Your task to perform on an android device: open app "eBay: The shopping marketplace" (install if not already installed) and go to login screen Image 0: 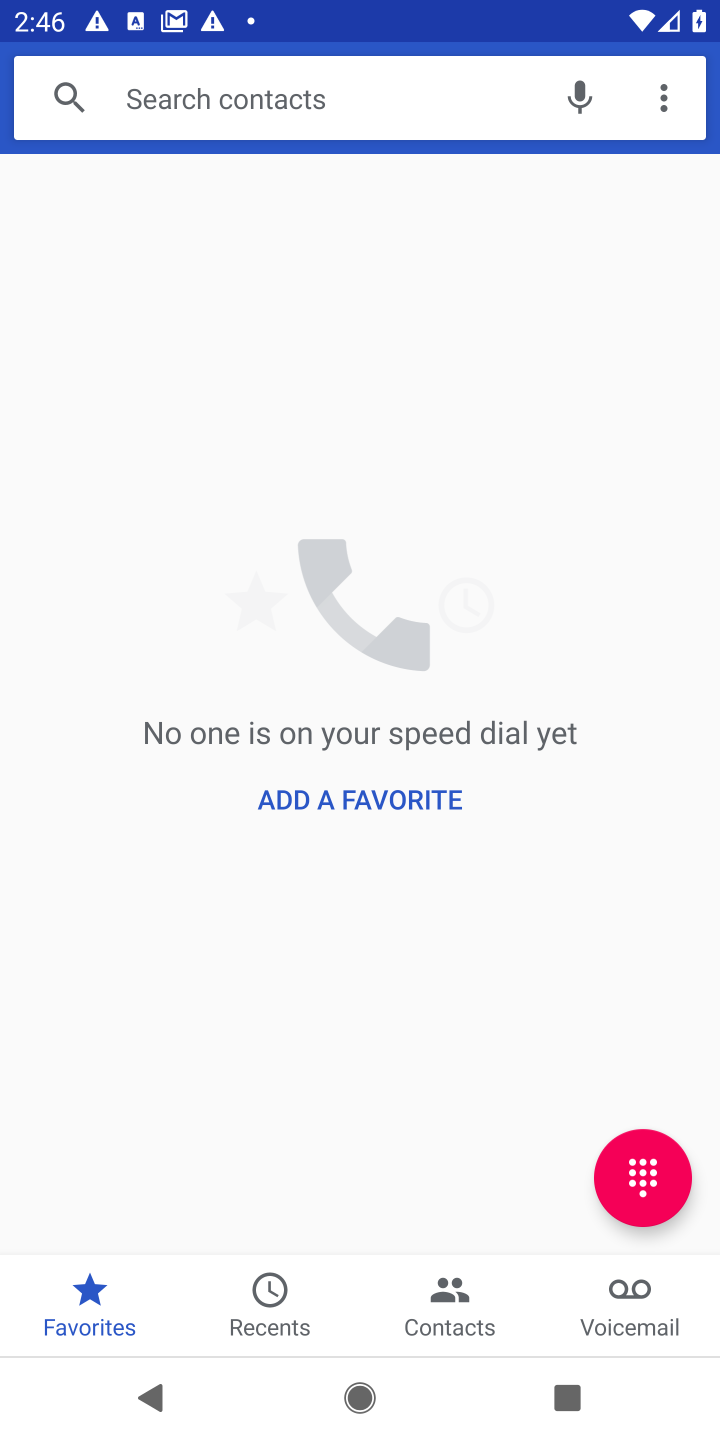
Step 0: press home button
Your task to perform on an android device: open app "eBay: The shopping marketplace" (install if not already installed) and go to login screen Image 1: 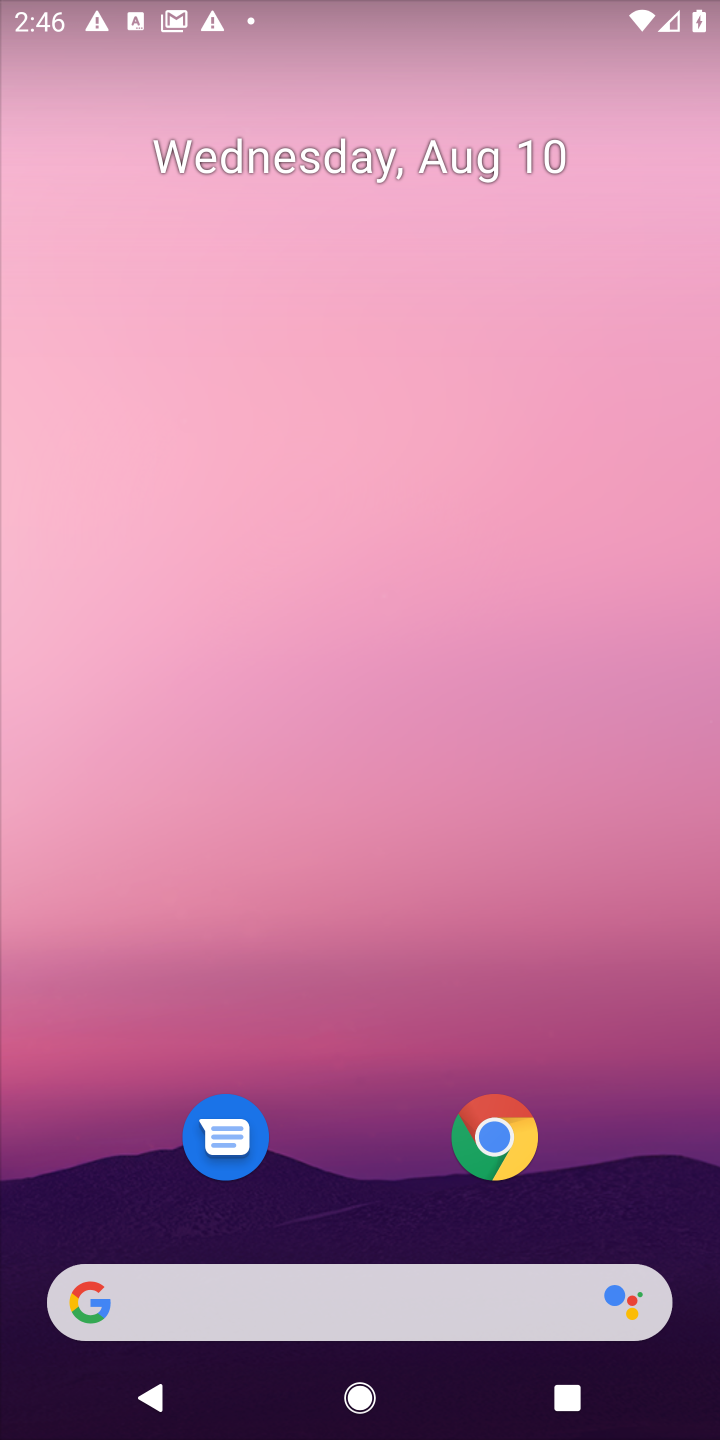
Step 1: drag from (358, 818) to (382, 76)
Your task to perform on an android device: open app "eBay: The shopping marketplace" (install if not already installed) and go to login screen Image 2: 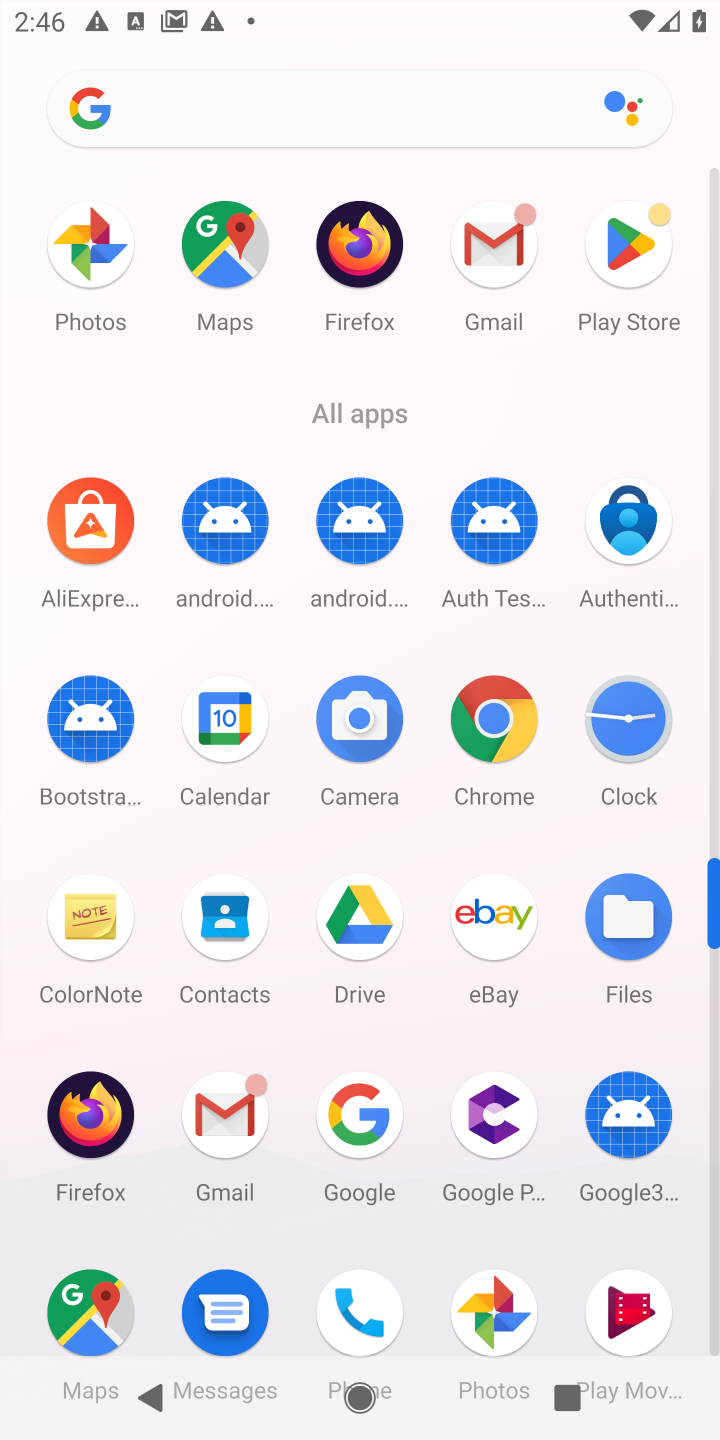
Step 2: click (651, 279)
Your task to perform on an android device: open app "eBay: The shopping marketplace" (install if not already installed) and go to login screen Image 3: 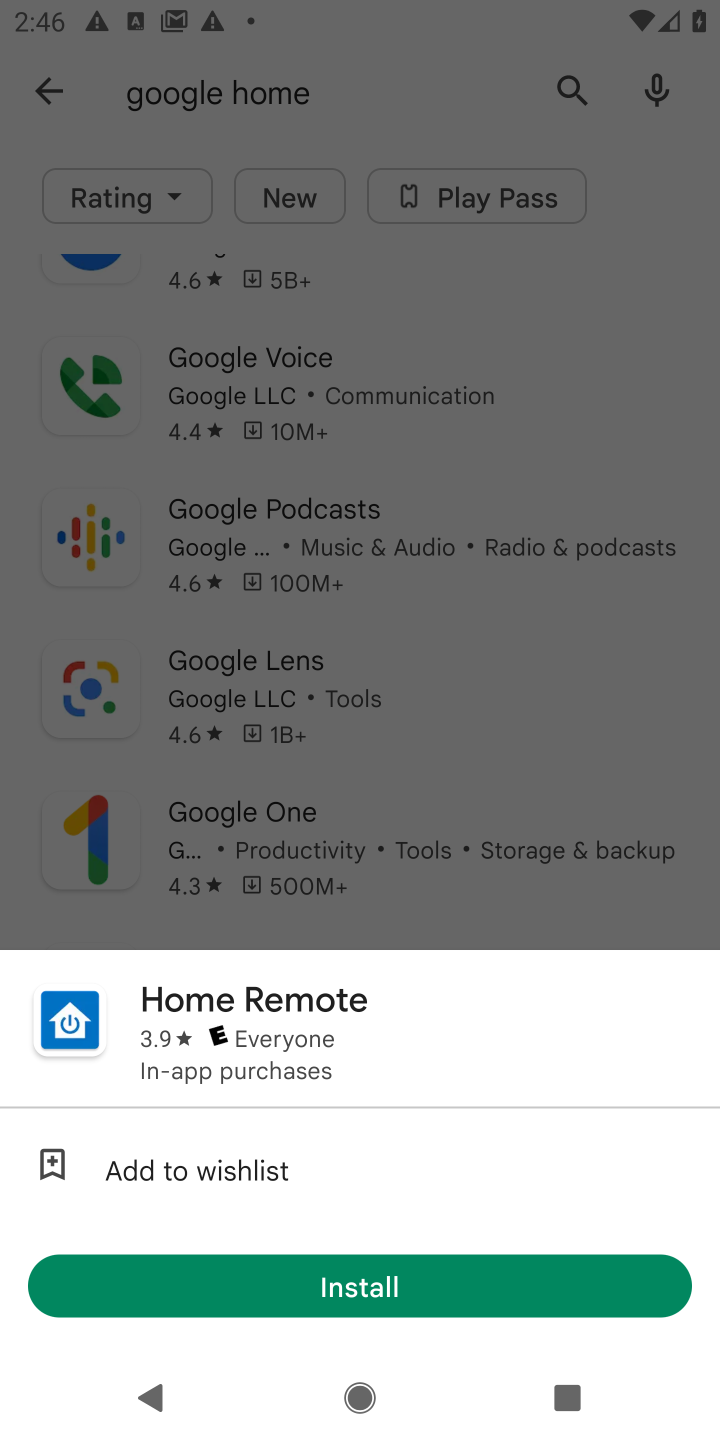
Step 3: click (45, 91)
Your task to perform on an android device: open app "eBay: The shopping marketplace" (install if not already installed) and go to login screen Image 4: 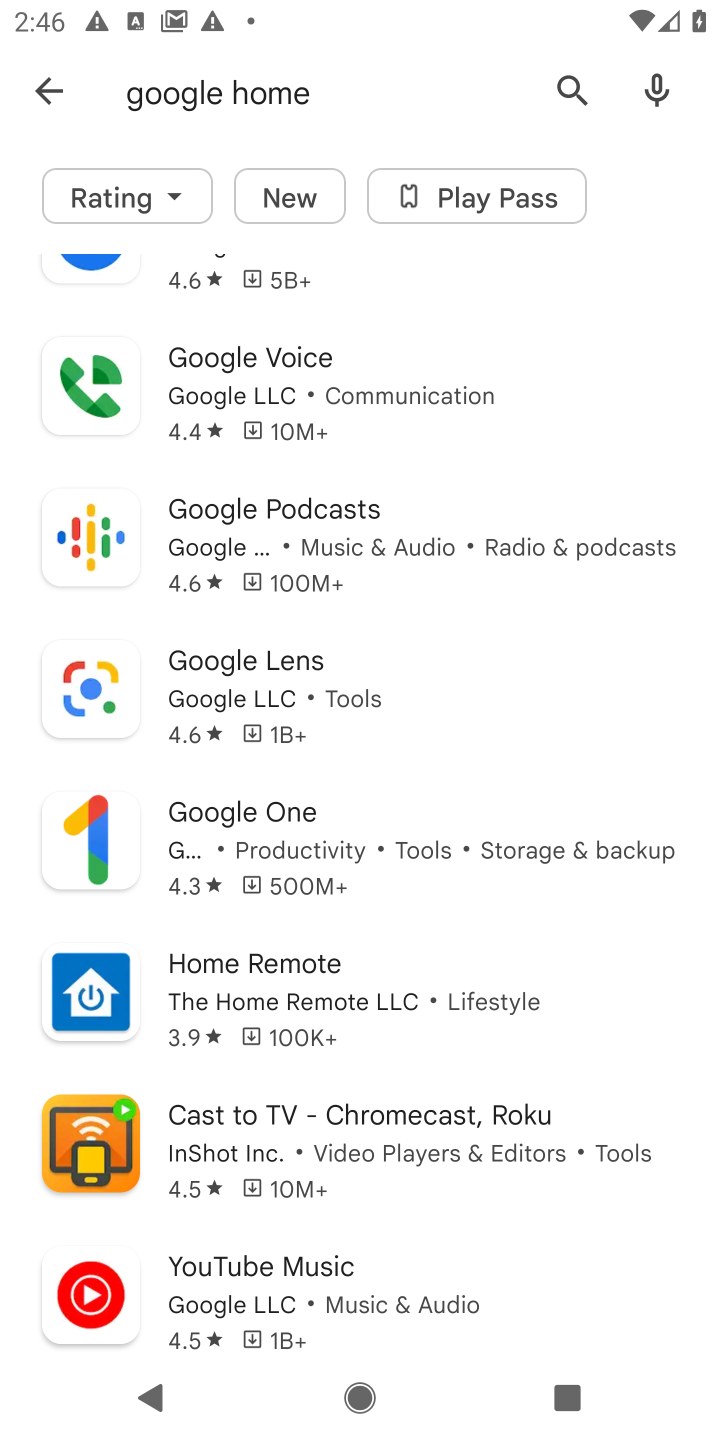
Step 4: click (262, 93)
Your task to perform on an android device: open app "eBay: The shopping marketplace" (install if not already installed) and go to login screen Image 5: 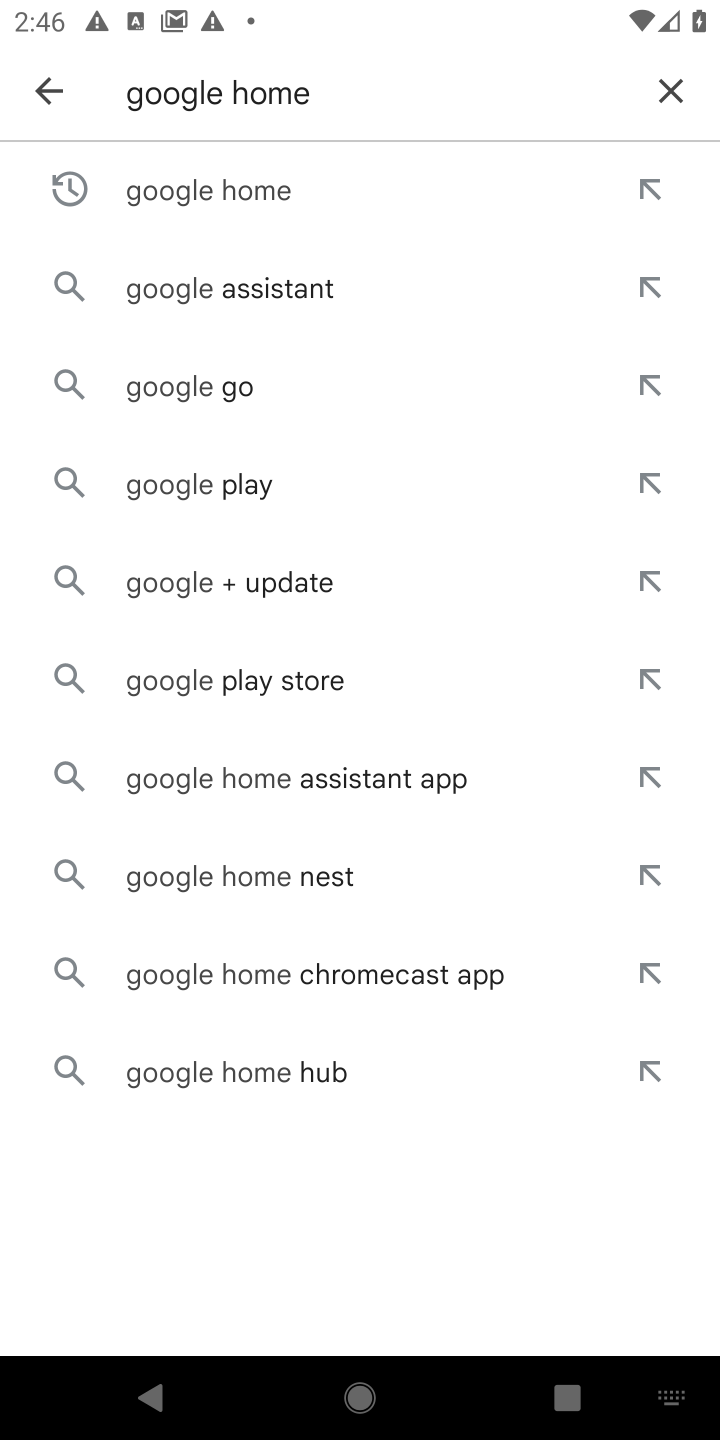
Step 5: click (674, 85)
Your task to perform on an android device: open app "eBay: The shopping marketplace" (install if not already installed) and go to login screen Image 6: 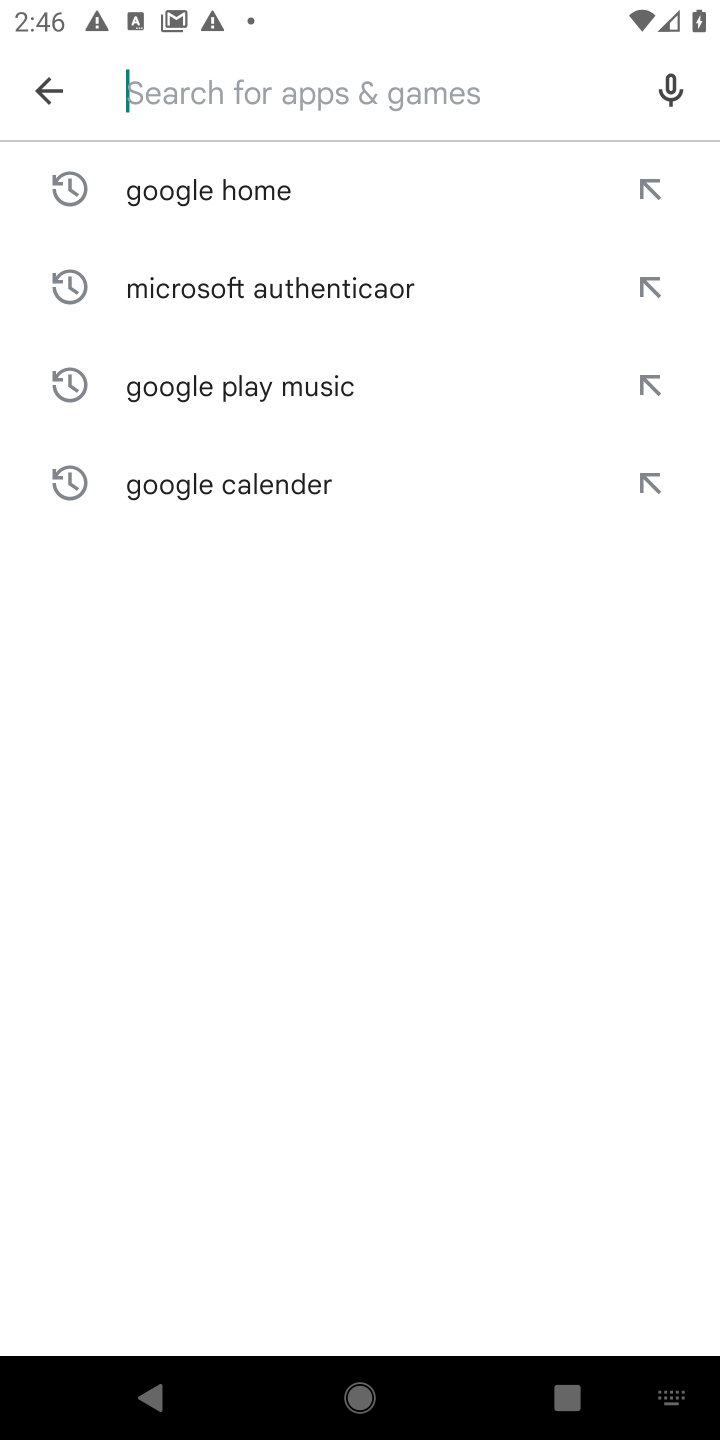
Step 6: type "eBay"
Your task to perform on an android device: open app "eBay: The shopping marketplace" (install if not already installed) and go to login screen Image 7: 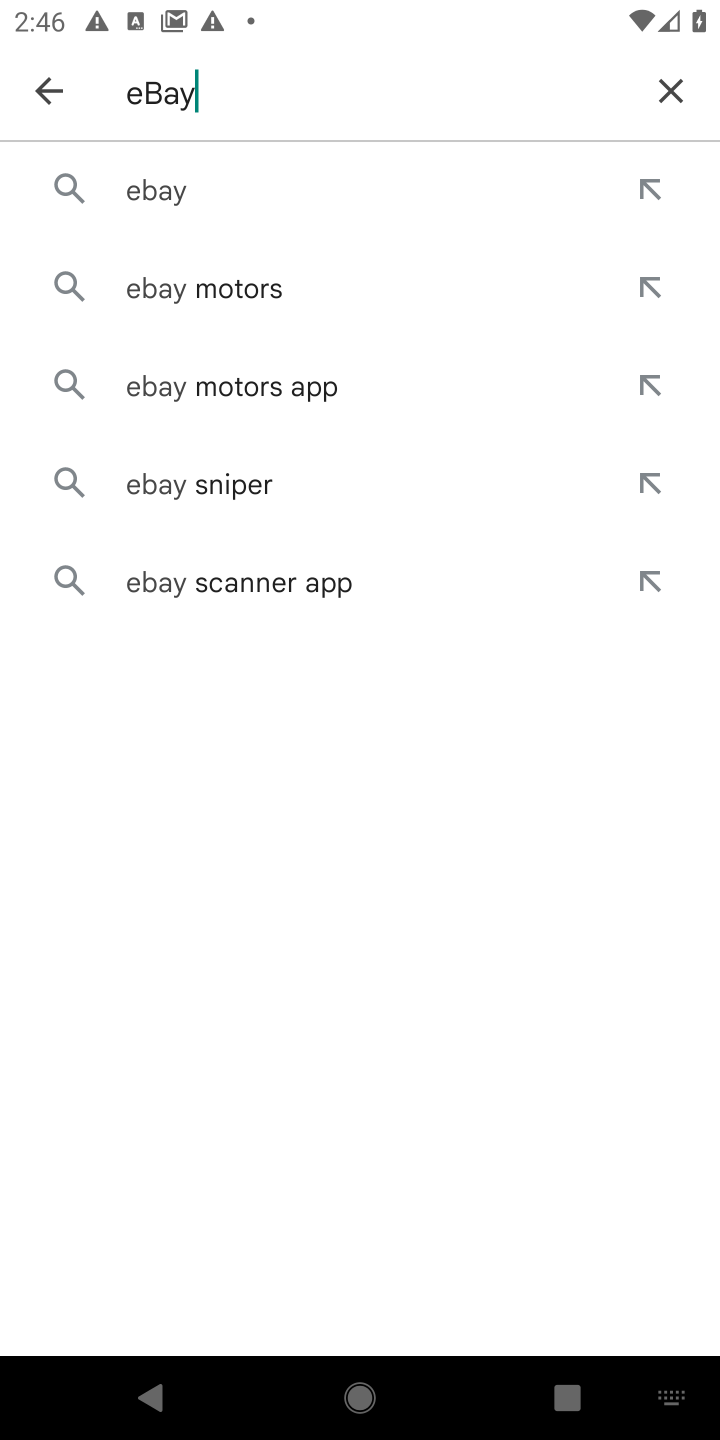
Step 7: click (181, 199)
Your task to perform on an android device: open app "eBay: The shopping marketplace" (install if not already installed) and go to login screen Image 8: 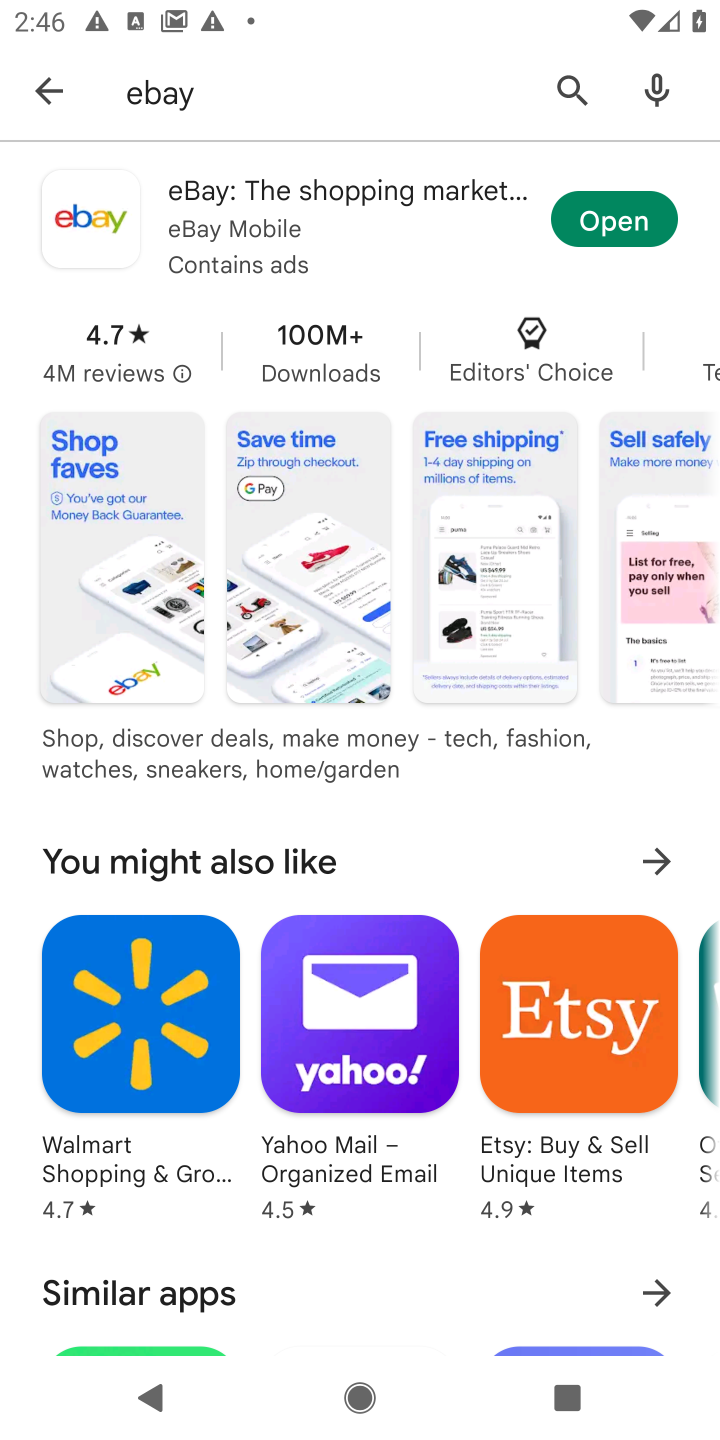
Step 8: click (611, 219)
Your task to perform on an android device: open app "eBay: The shopping marketplace" (install if not already installed) and go to login screen Image 9: 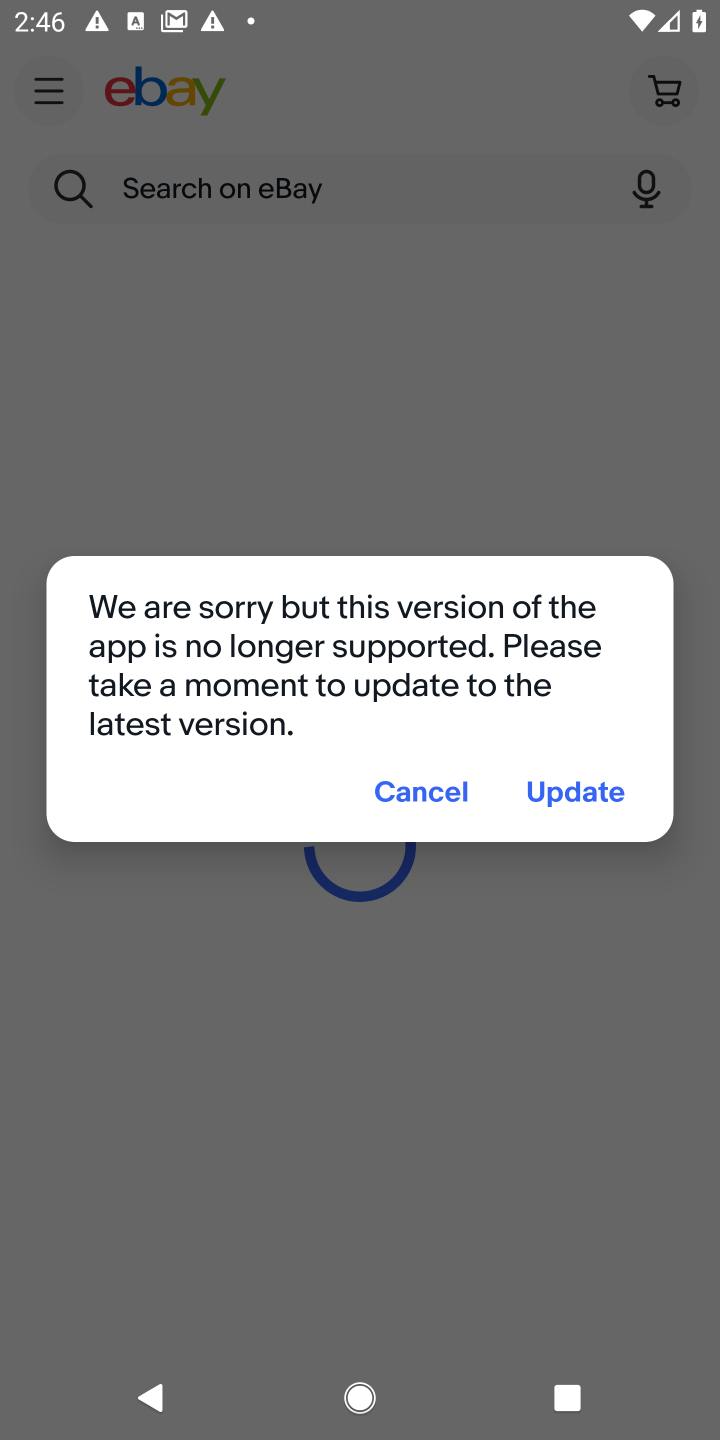
Step 9: click (428, 786)
Your task to perform on an android device: open app "eBay: The shopping marketplace" (install if not already installed) and go to login screen Image 10: 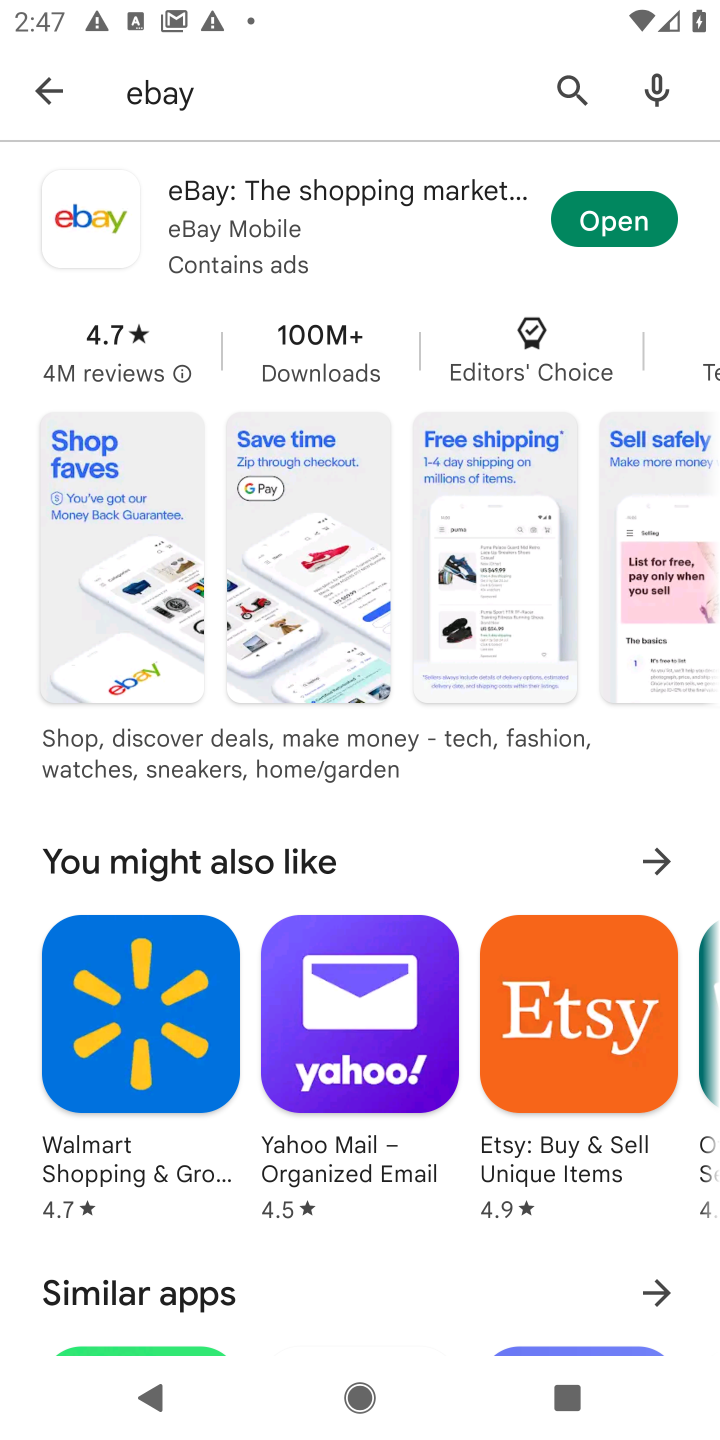
Step 10: task complete